Your task to perform on an android device: Search for vegetarian restaurants on Maps Image 0: 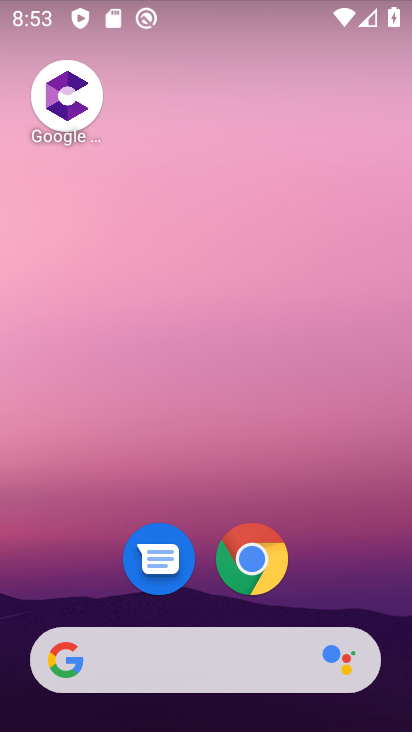
Step 0: drag from (278, 360) to (221, 99)
Your task to perform on an android device: Search for vegetarian restaurants on Maps Image 1: 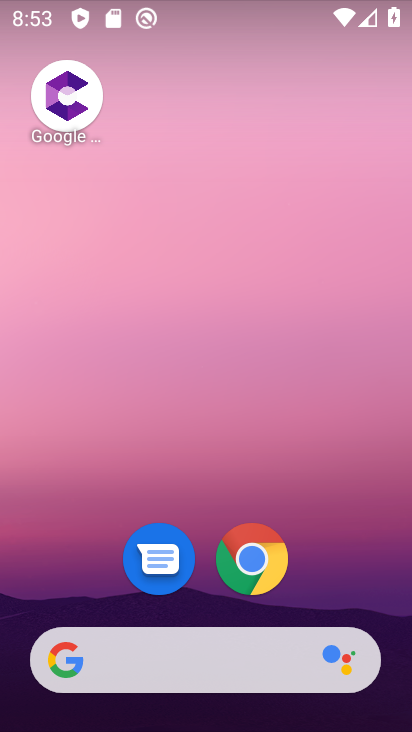
Step 1: drag from (204, 434) to (158, 99)
Your task to perform on an android device: Search for vegetarian restaurants on Maps Image 2: 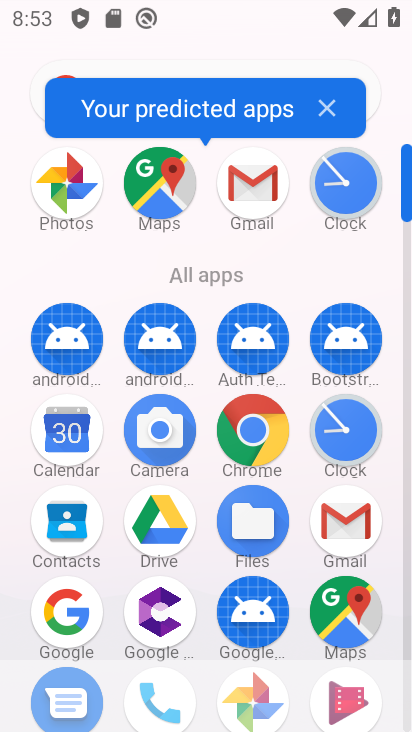
Step 2: click (169, 194)
Your task to perform on an android device: Search for vegetarian restaurants on Maps Image 3: 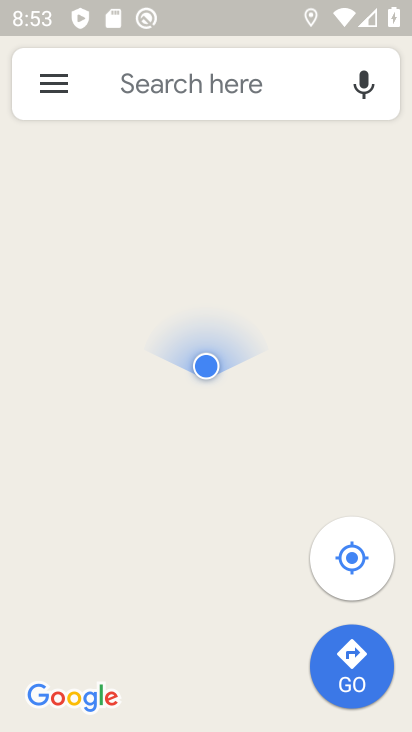
Step 3: click (166, 84)
Your task to perform on an android device: Search for vegetarian restaurants on Maps Image 4: 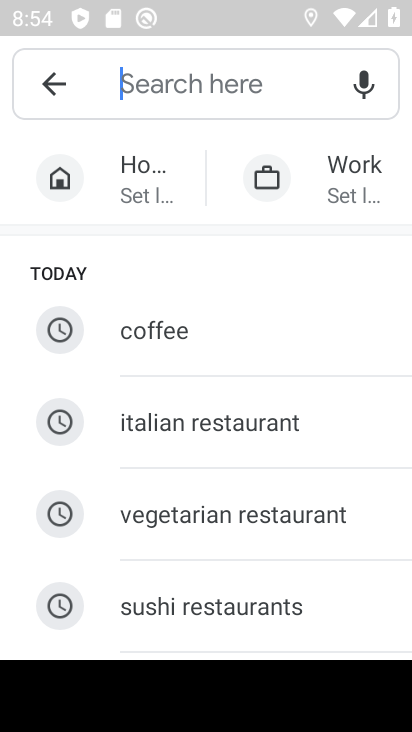
Step 4: click (221, 515)
Your task to perform on an android device: Search for vegetarian restaurants on Maps Image 5: 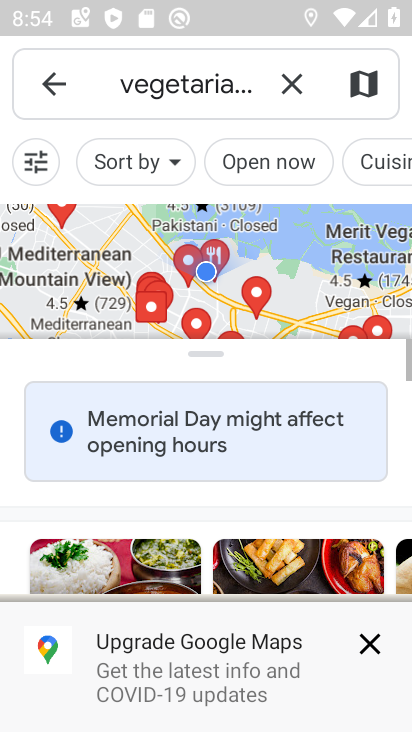
Step 5: task complete